Your task to perform on an android device: set an alarm Image 0: 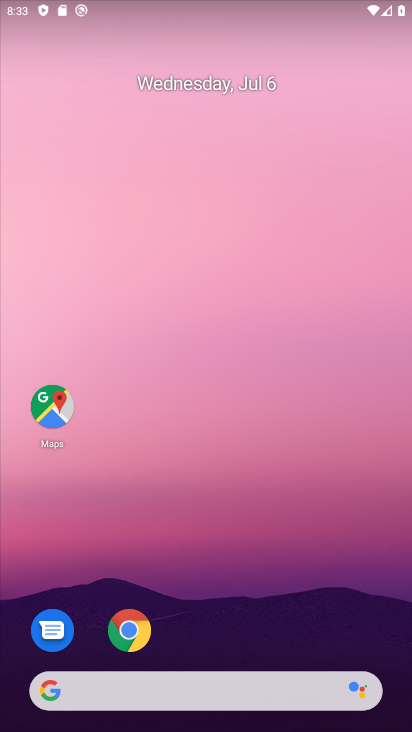
Step 0: drag from (208, 624) to (162, 45)
Your task to perform on an android device: set an alarm Image 1: 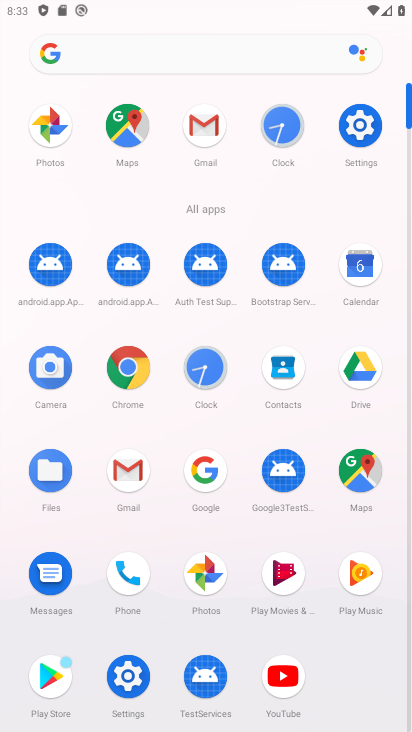
Step 1: click (302, 138)
Your task to perform on an android device: set an alarm Image 2: 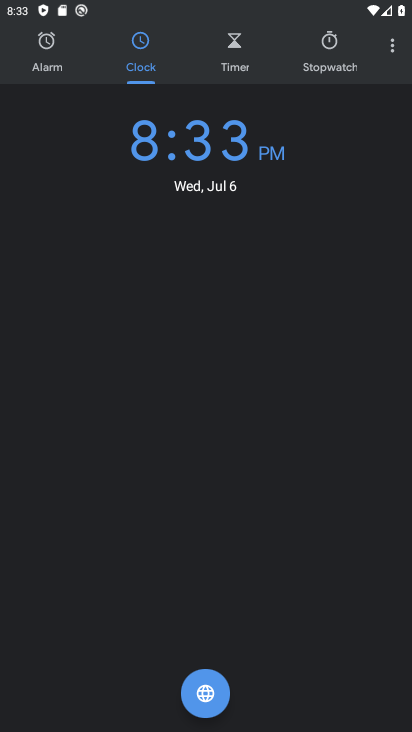
Step 2: click (76, 50)
Your task to perform on an android device: set an alarm Image 3: 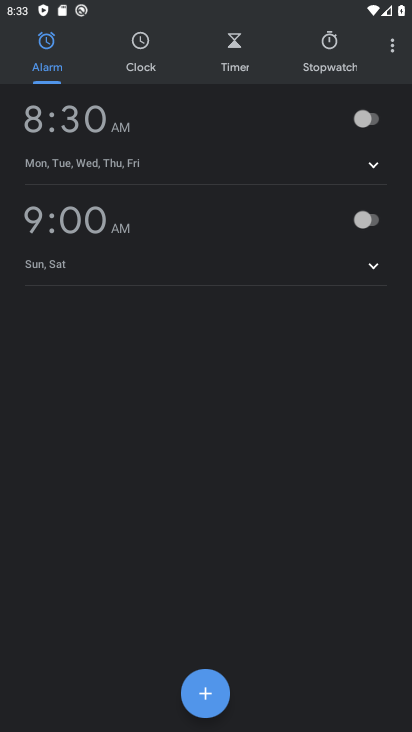
Step 3: click (397, 83)
Your task to perform on an android device: set an alarm Image 4: 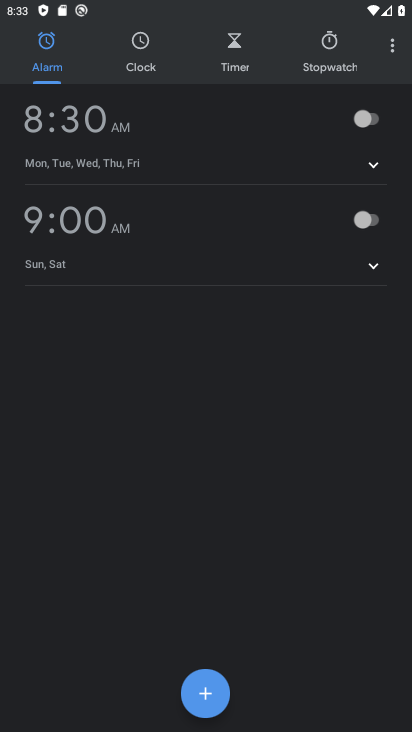
Step 4: click (375, 120)
Your task to perform on an android device: set an alarm Image 5: 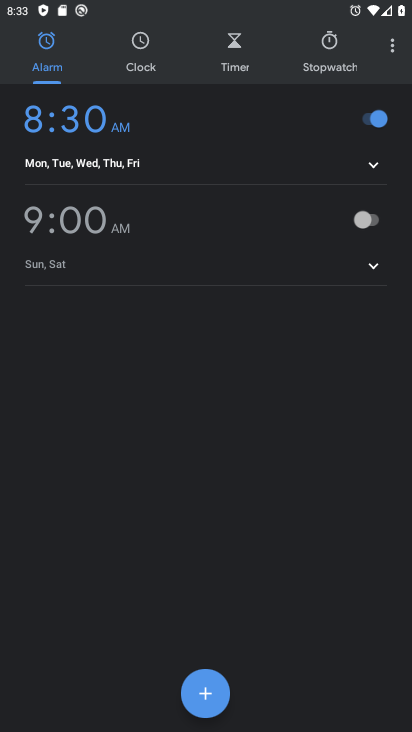
Step 5: task complete